Your task to perform on an android device: turn off location Image 0: 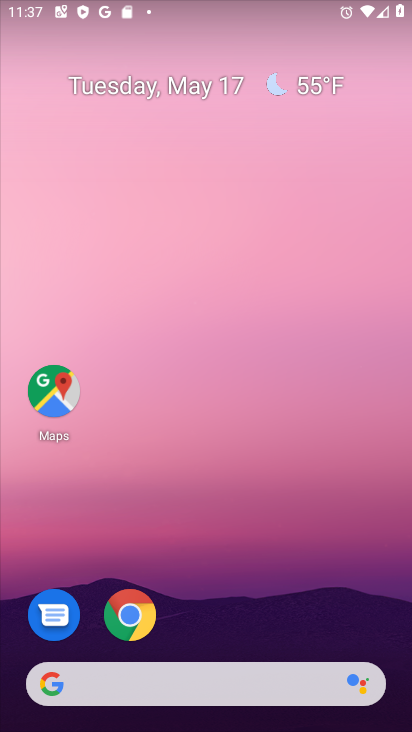
Step 0: drag from (255, 655) to (285, 149)
Your task to perform on an android device: turn off location Image 1: 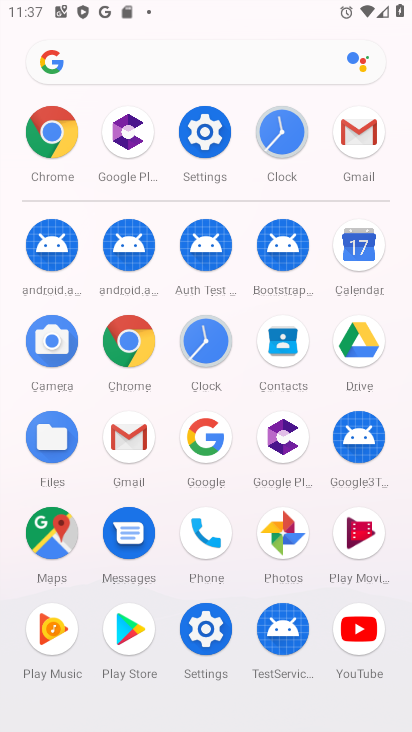
Step 1: click (210, 135)
Your task to perform on an android device: turn off location Image 2: 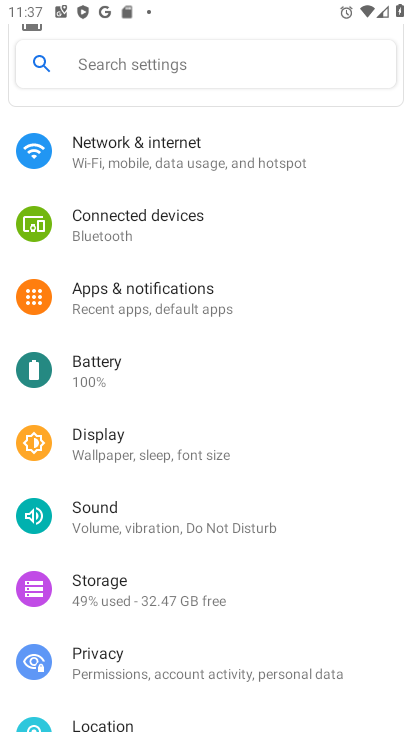
Step 2: click (105, 716)
Your task to perform on an android device: turn off location Image 3: 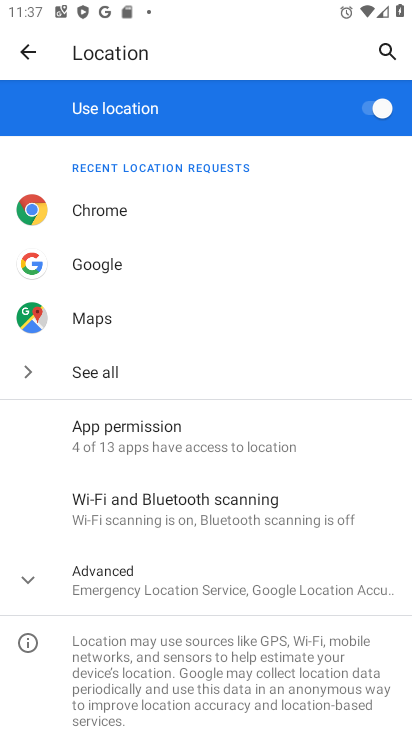
Step 3: click (384, 104)
Your task to perform on an android device: turn off location Image 4: 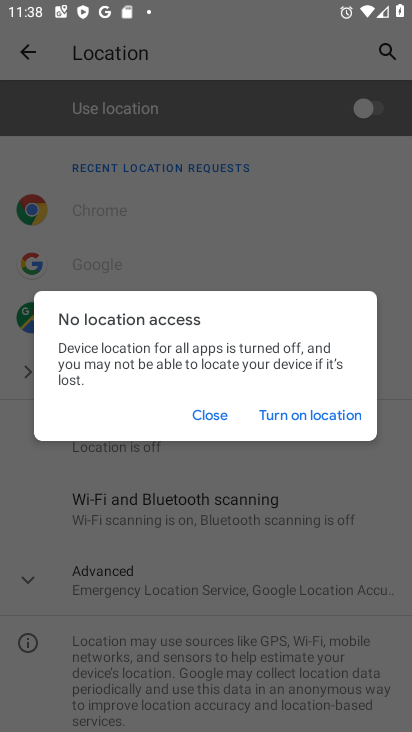
Step 4: task complete